Your task to perform on an android device: Open calendar and show me the fourth week of next month Image 0: 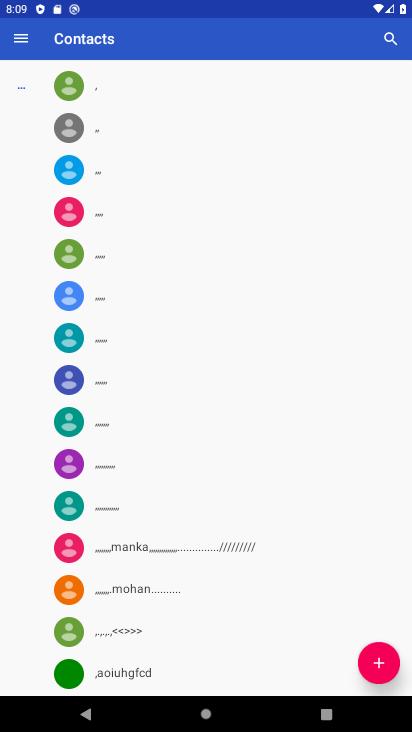
Step 0: press home button
Your task to perform on an android device: Open calendar and show me the fourth week of next month Image 1: 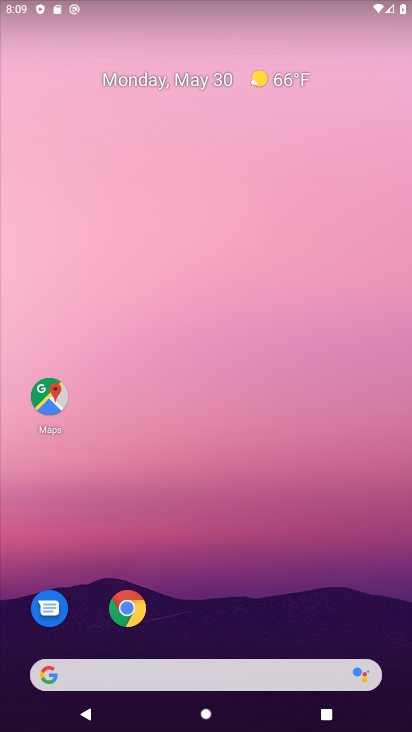
Step 1: drag from (180, 715) to (163, 36)
Your task to perform on an android device: Open calendar and show me the fourth week of next month Image 2: 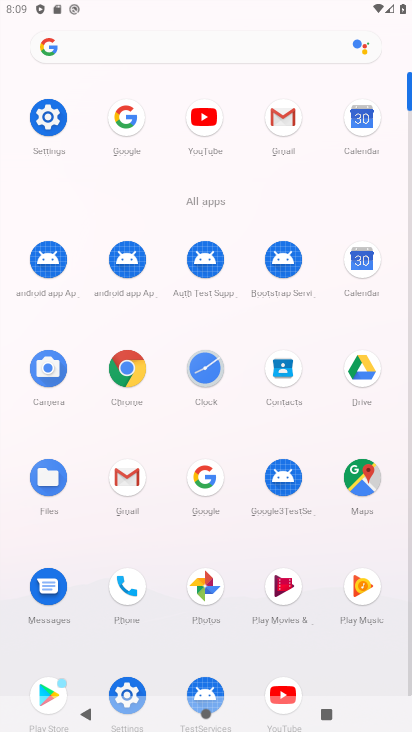
Step 2: click (356, 260)
Your task to perform on an android device: Open calendar and show me the fourth week of next month Image 3: 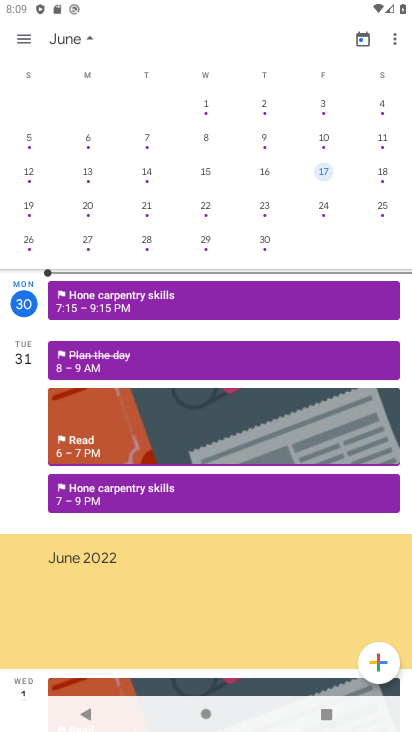
Step 3: click (87, 240)
Your task to perform on an android device: Open calendar and show me the fourth week of next month Image 4: 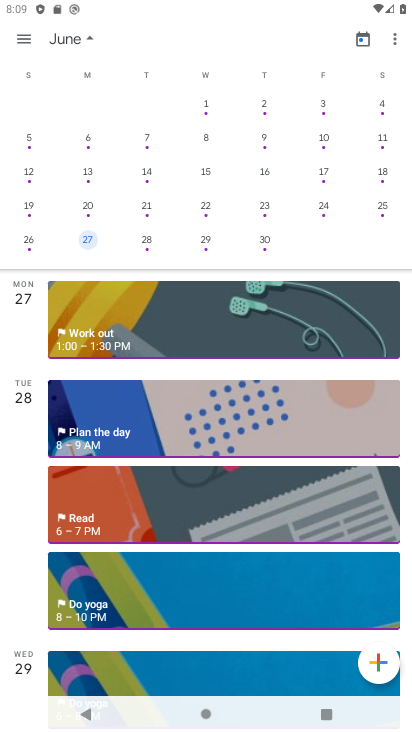
Step 4: click (16, 40)
Your task to perform on an android device: Open calendar and show me the fourth week of next month Image 5: 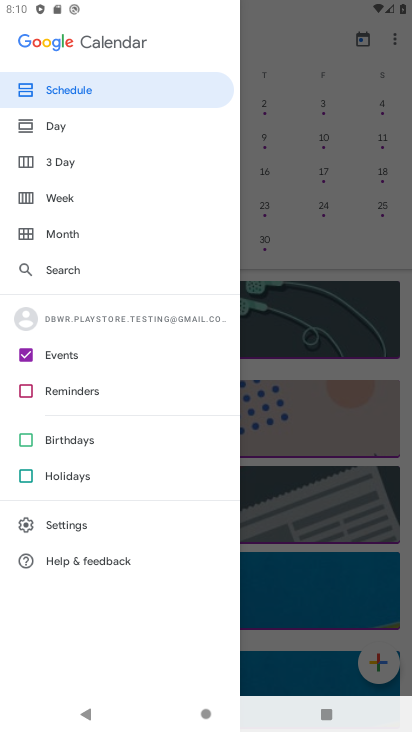
Step 5: click (64, 199)
Your task to perform on an android device: Open calendar and show me the fourth week of next month Image 6: 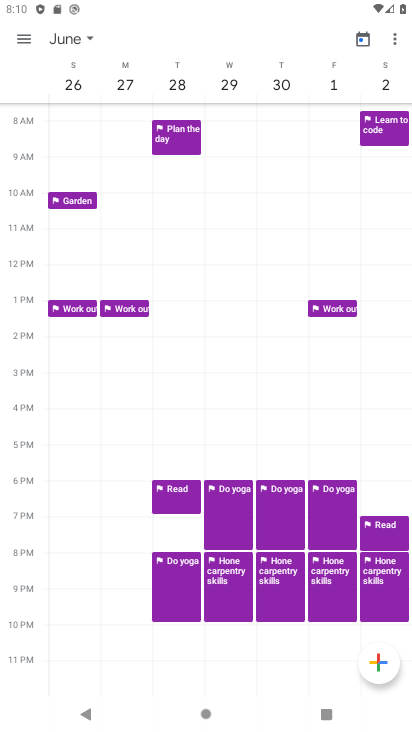
Step 6: task complete